Your task to perform on an android device: turn off notifications settings in the gmail app Image 0: 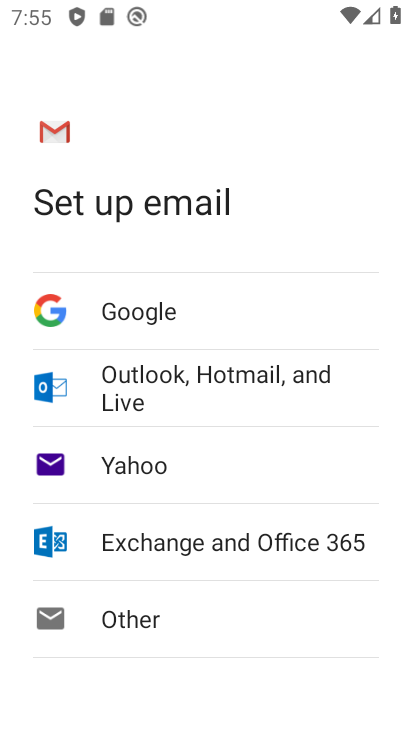
Step 0: drag from (199, 13) to (137, 682)
Your task to perform on an android device: turn off notifications settings in the gmail app Image 1: 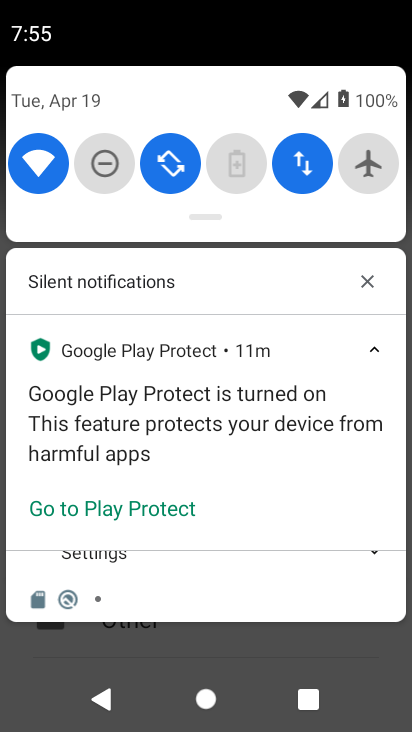
Step 1: drag from (224, 106) to (228, 617)
Your task to perform on an android device: turn off notifications settings in the gmail app Image 2: 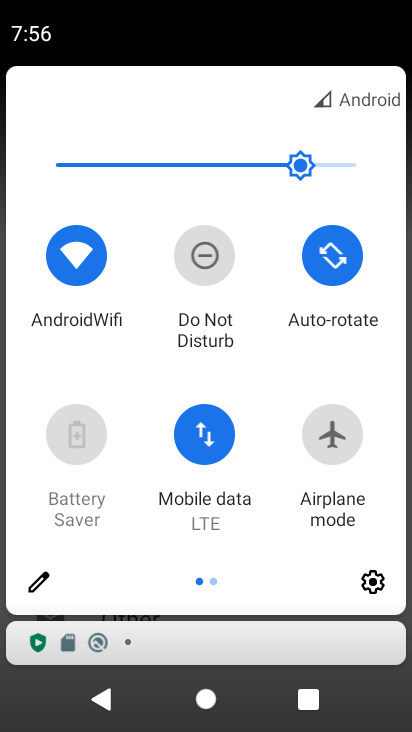
Step 2: click (376, 586)
Your task to perform on an android device: turn off notifications settings in the gmail app Image 3: 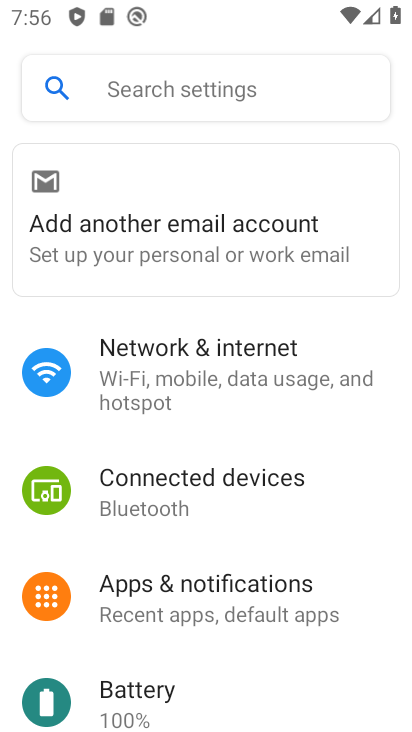
Step 3: click (308, 611)
Your task to perform on an android device: turn off notifications settings in the gmail app Image 4: 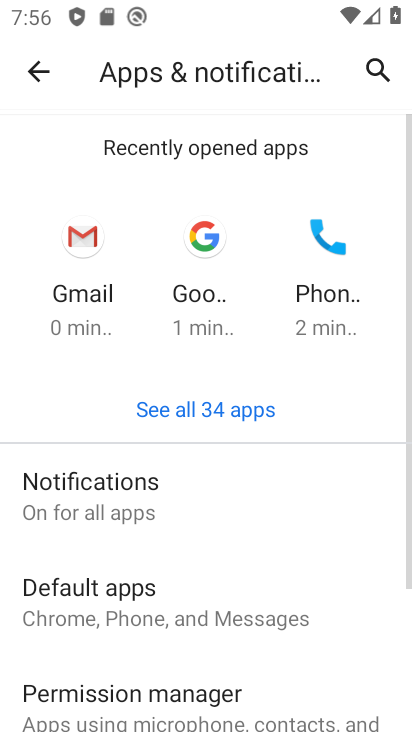
Step 4: click (104, 236)
Your task to perform on an android device: turn off notifications settings in the gmail app Image 5: 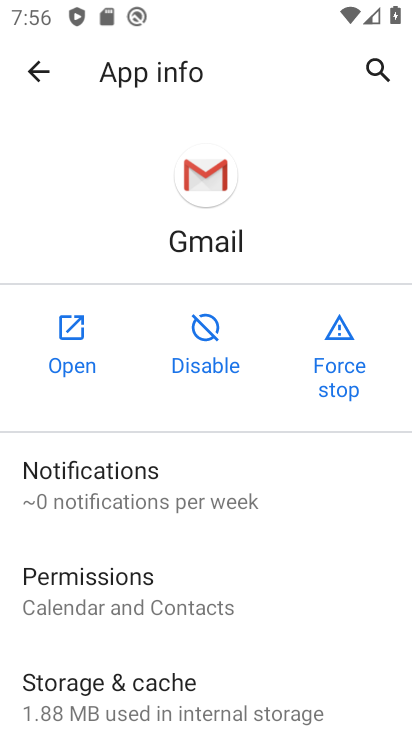
Step 5: click (206, 489)
Your task to perform on an android device: turn off notifications settings in the gmail app Image 6: 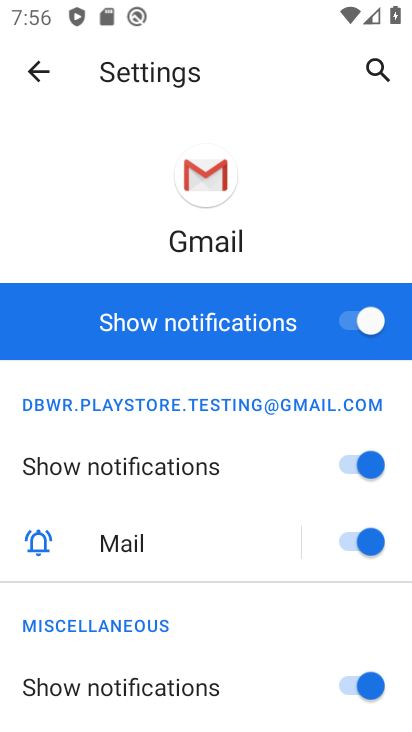
Step 6: click (367, 329)
Your task to perform on an android device: turn off notifications settings in the gmail app Image 7: 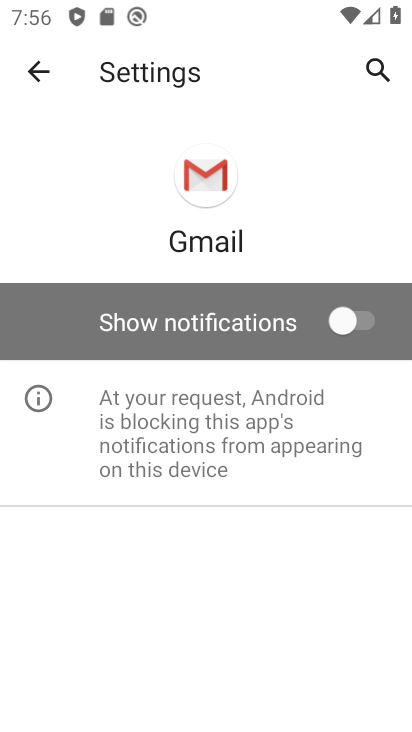
Step 7: task complete